Your task to perform on an android device: Set the phone to "Do not disturb". Image 0: 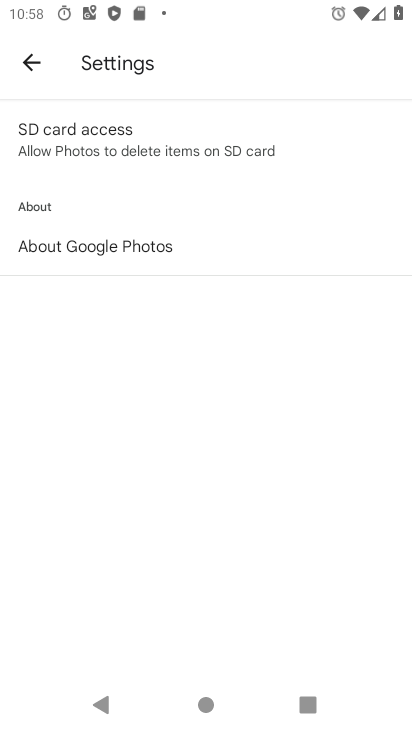
Step 0: click (29, 64)
Your task to perform on an android device: Set the phone to "Do not disturb". Image 1: 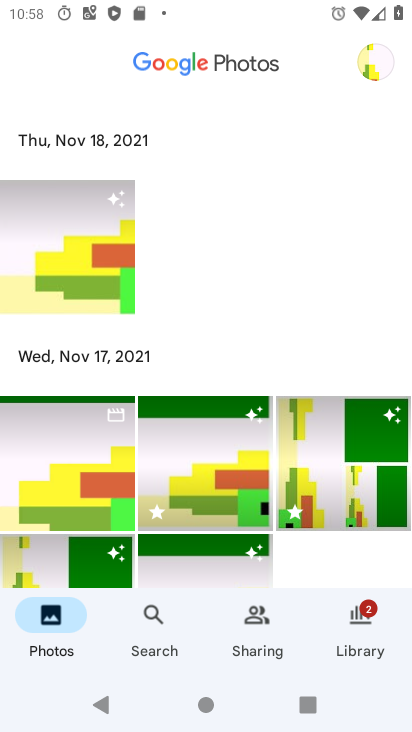
Step 1: press back button
Your task to perform on an android device: Set the phone to "Do not disturb". Image 2: 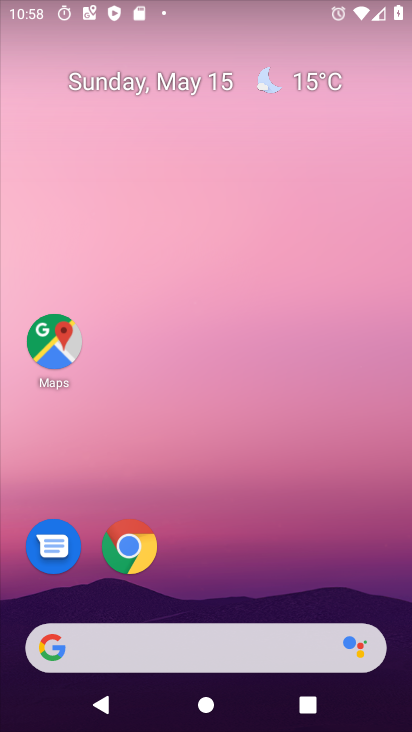
Step 2: drag from (253, 592) to (196, 273)
Your task to perform on an android device: Set the phone to "Do not disturb". Image 3: 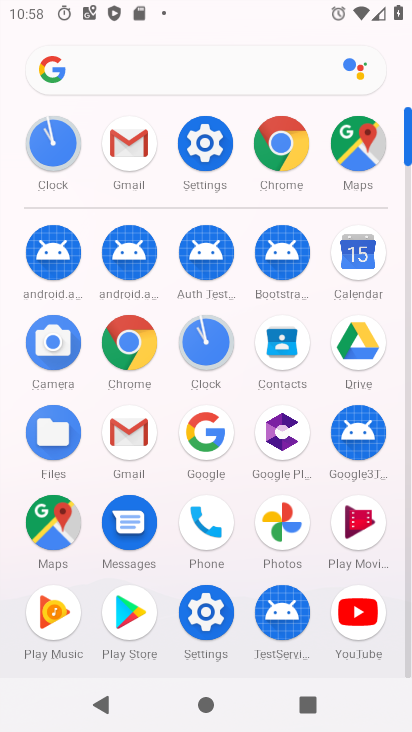
Step 3: click (274, 152)
Your task to perform on an android device: Set the phone to "Do not disturb". Image 4: 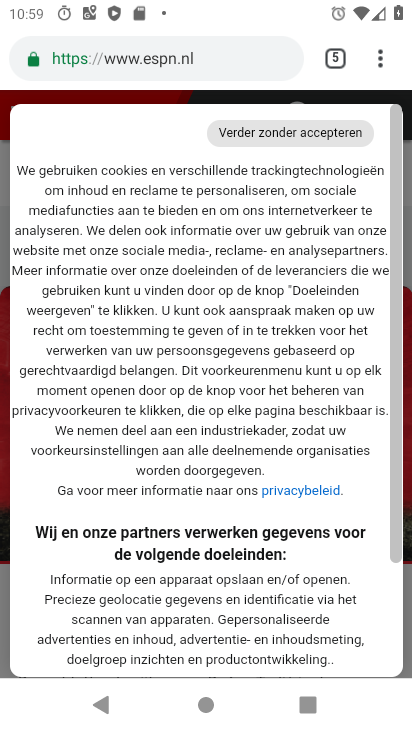
Step 4: press home button
Your task to perform on an android device: Set the phone to "Do not disturb". Image 5: 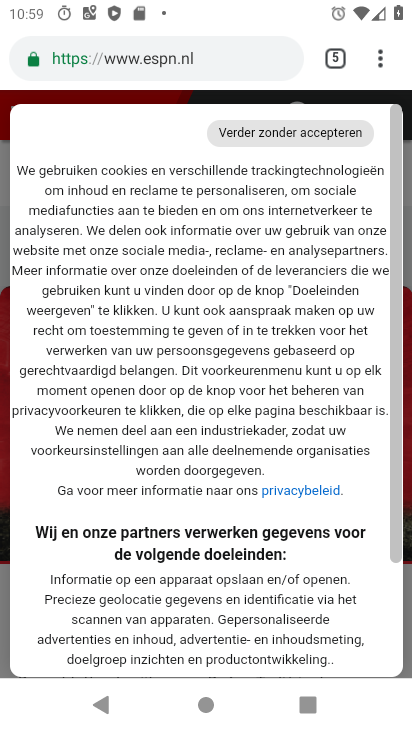
Step 5: press home button
Your task to perform on an android device: Set the phone to "Do not disturb". Image 6: 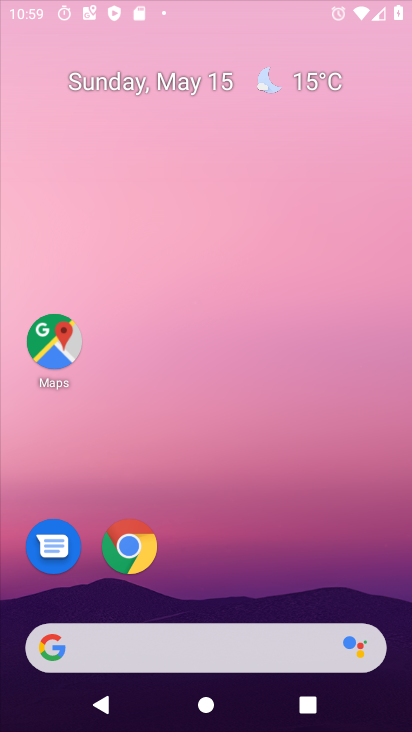
Step 6: press home button
Your task to perform on an android device: Set the phone to "Do not disturb". Image 7: 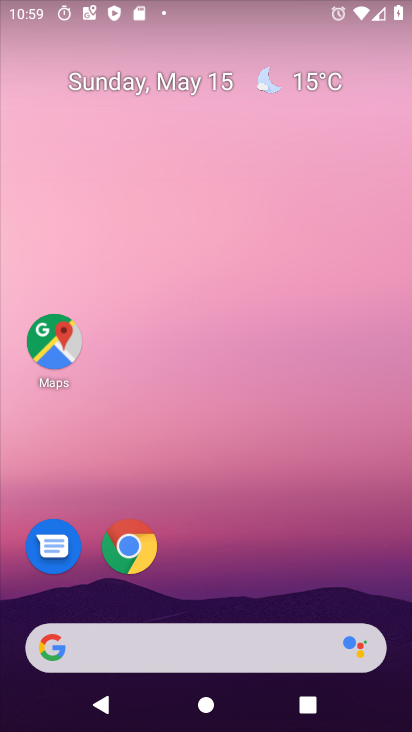
Step 7: drag from (225, 566) to (96, 53)
Your task to perform on an android device: Set the phone to "Do not disturb". Image 8: 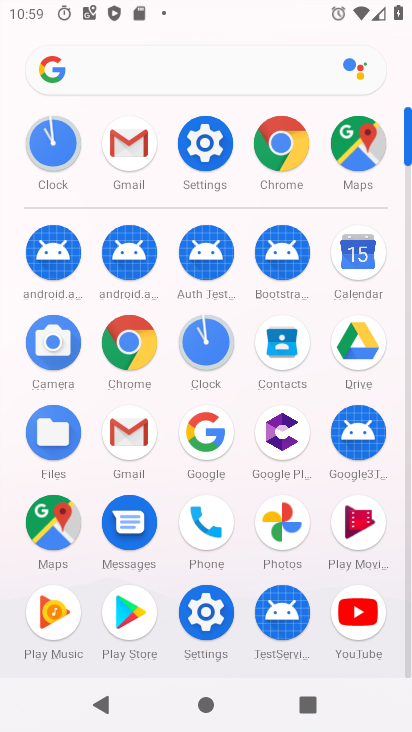
Step 8: click (191, 135)
Your task to perform on an android device: Set the phone to "Do not disturb". Image 9: 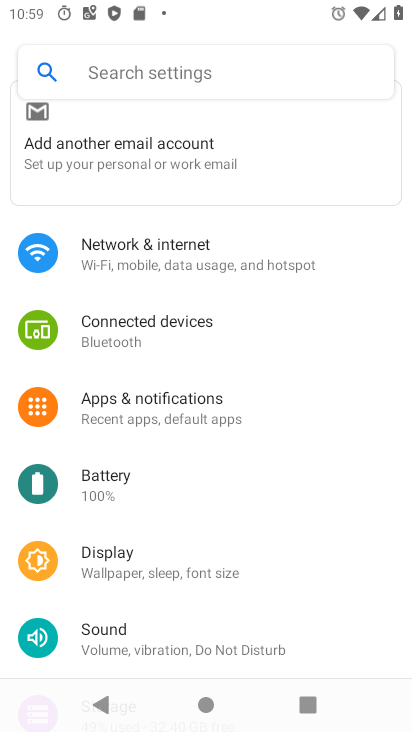
Step 9: click (112, 634)
Your task to perform on an android device: Set the phone to "Do not disturb". Image 10: 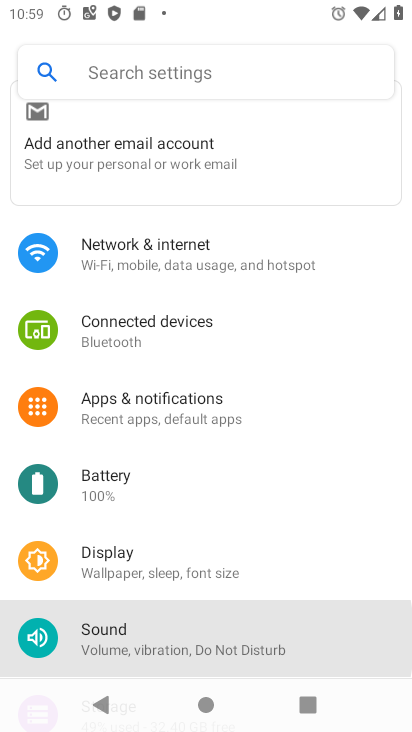
Step 10: click (112, 634)
Your task to perform on an android device: Set the phone to "Do not disturb". Image 11: 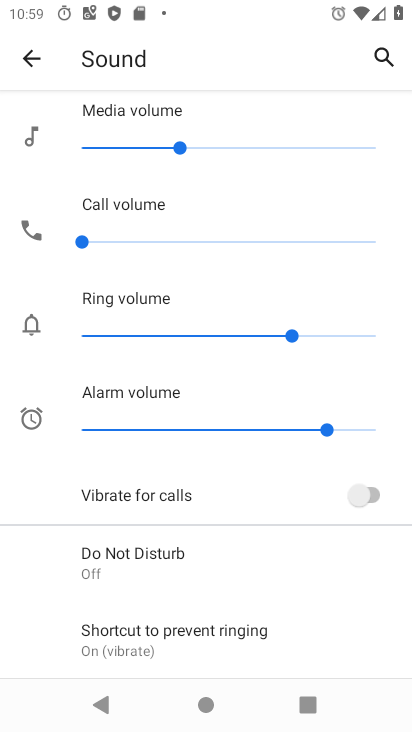
Step 11: drag from (171, 569) to (146, 196)
Your task to perform on an android device: Set the phone to "Do not disturb". Image 12: 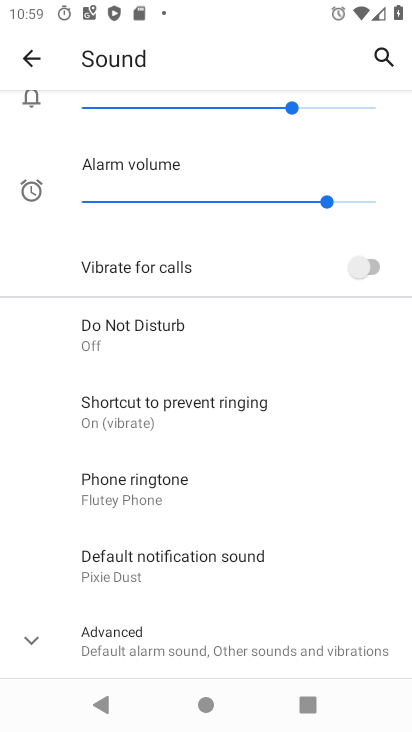
Step 12: click (118, 326)
Your task to perform on an android device: Set the phone to "Do not disturb". Image 13: 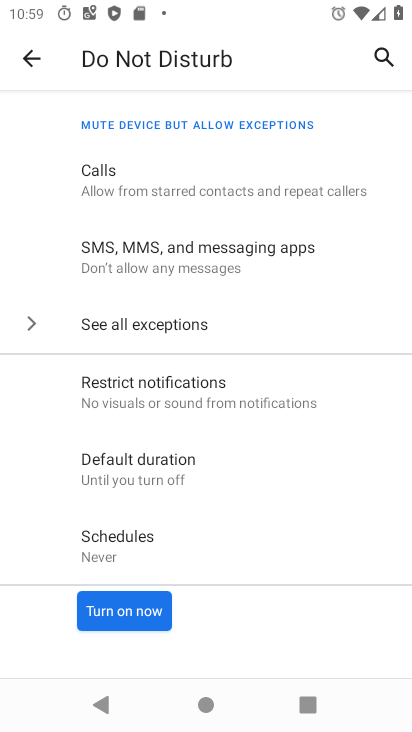
Step 13: click (120, 609)
Your task to perform on an android device: Set the phone to "Do not disturb". Image 14: 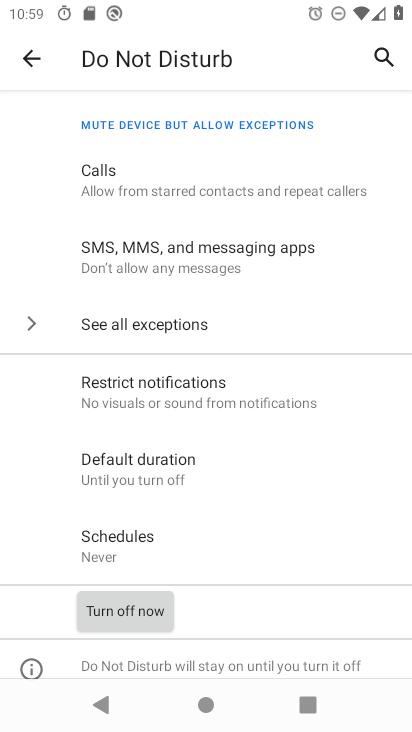
Step 14: click (31, 57)
Your task to perform on an android device: Set the phone to "Do not disturb". Image 15: 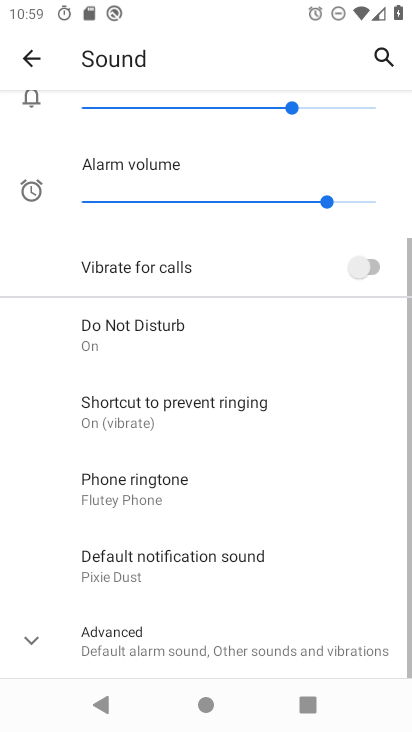
Step 15: click (31, 56)
Your task to perform on an android device: Set the phone to "Do not disturb". Image 16: 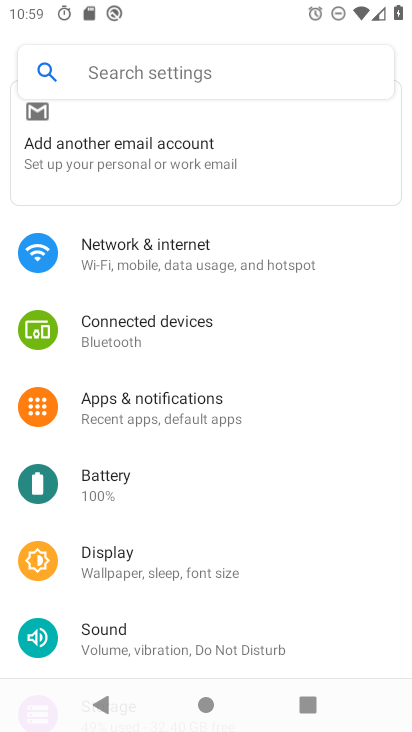
Step 16: press home button
Your task to perform on an android device: Set the phone to "Do not disturb". Image 17: 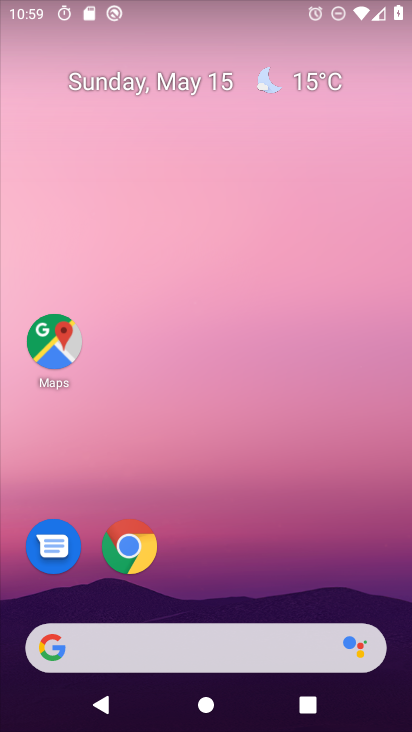
Step 17: drag from (294, 540) to (155, 39)
Your task to perform on an android device: Set the phone to "Do not disturb". Image 18: 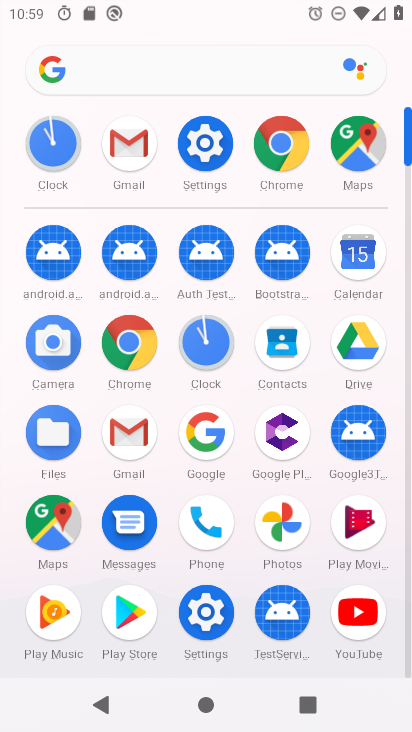
Step 18: click (202, 140)
Your task to perform on an android device: Set the phone to "Do not disturb". Image 19: 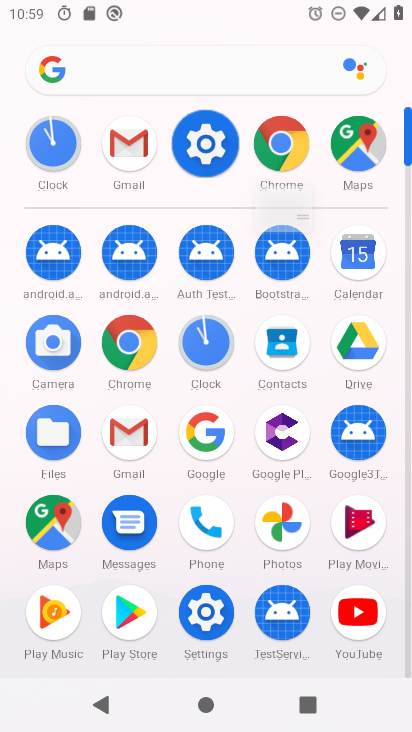
Step 19: click (202, 140)
Your task to perform on an android device: Set the phone to "Do not disturb". Image 20: 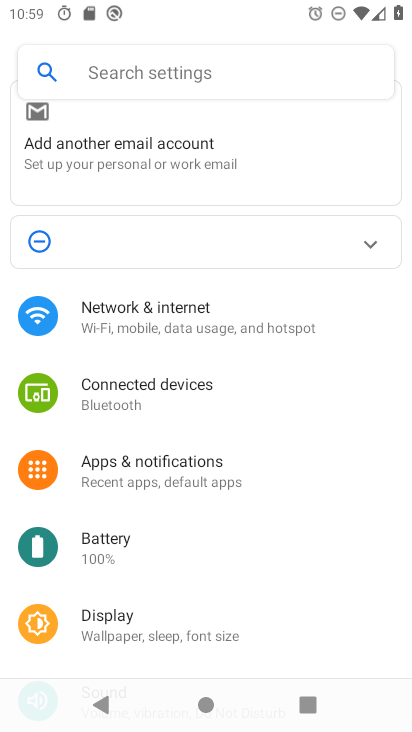
Step 20: drag from (165, 512) to (155, 44)
Your task to perform on an android device: Set the phone to "Do not disturb". Image 21: 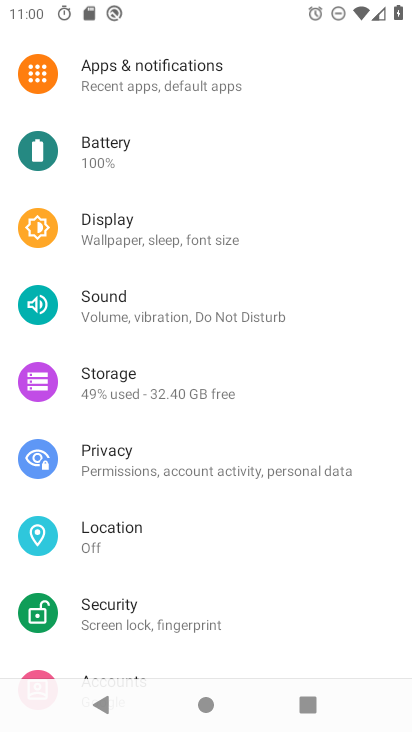
Step 21: click (136, 607)
Your task to perform on an android device: Set the phone to "Do not disturb". Image 22: 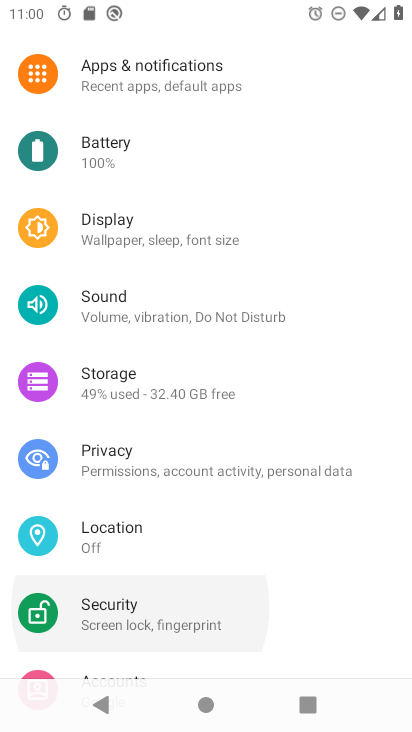
Step 22: click (136, 607)
Your task to perform on an android device: Set the phone to "Do not disturb". Image 23: 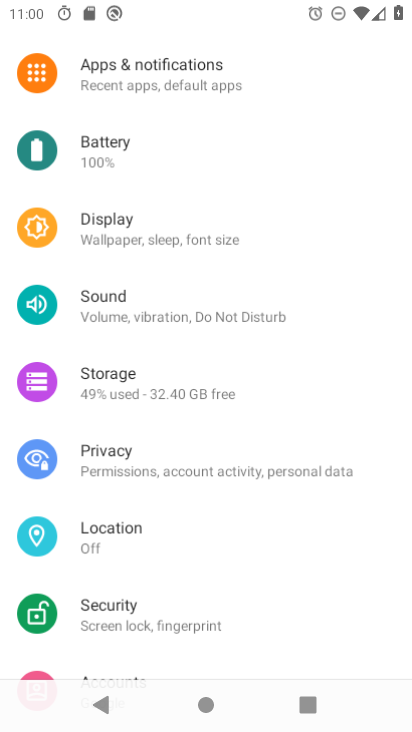
Step 23: click (136, 607)
Your task to perform on an android device: Set the phone to "Do not disturb". Image 24: 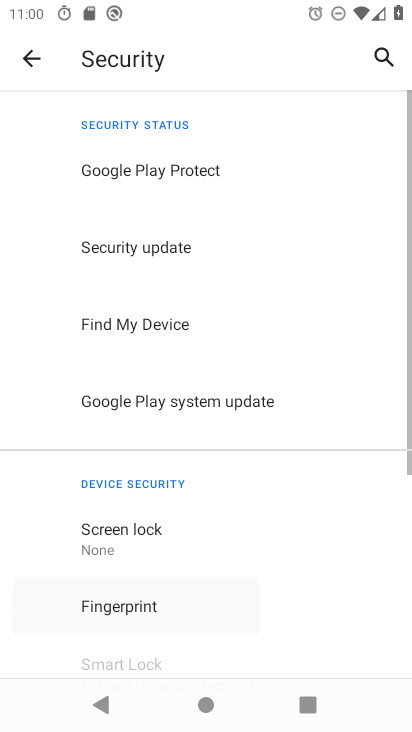
Step 24: click (136, 607)
Your task to perform on an android device: Set the phone to "Do not disturb". Image 25: 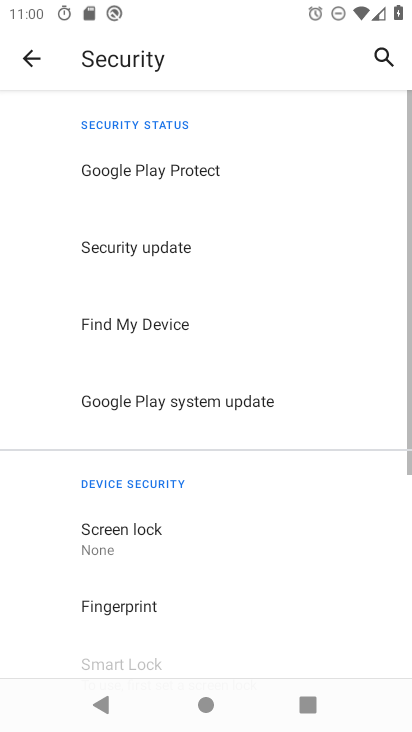
Step 25: click (149, 601)
Your task to perform on an android device: Set the phone to "Do not disturb". Image 26: 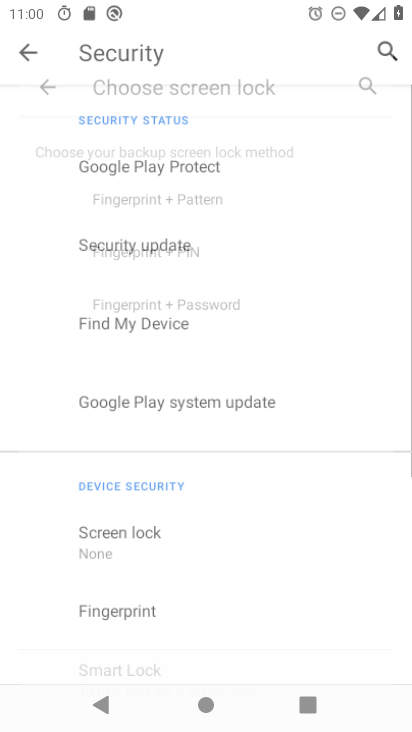
Step 26: click (194, 605)
Your task to perform on an android device: Set the phone to "Do not disturb". Image 27: 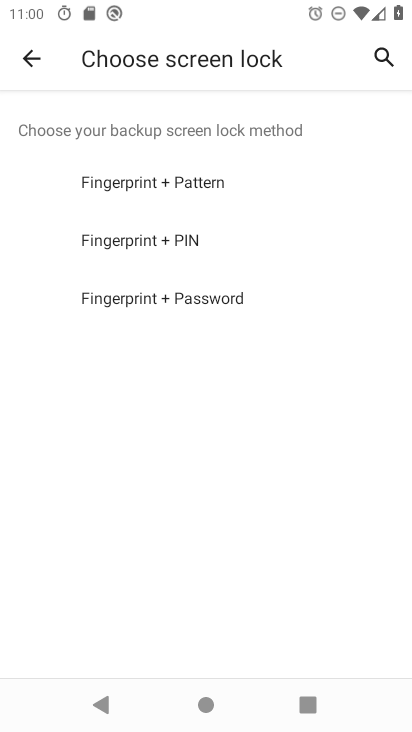
Step 27: click (26, 55)
Your task to perform on an android device: Set the phone to "Do not disturb". Image 28: 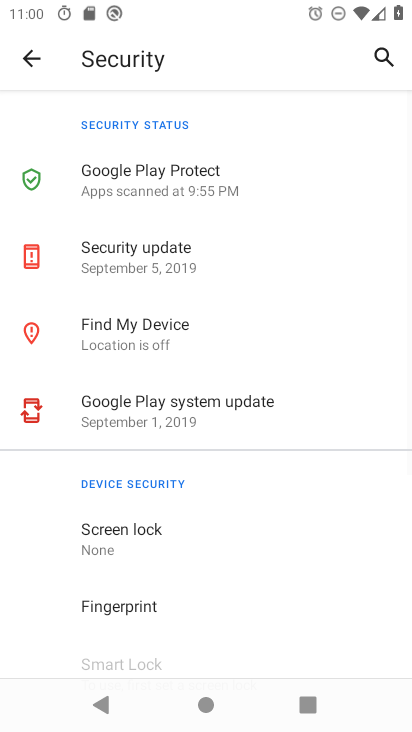
Step 28: click (22, 54)
Your task to perform on an android device: Set the phone to "Do not disturb". Image 29: 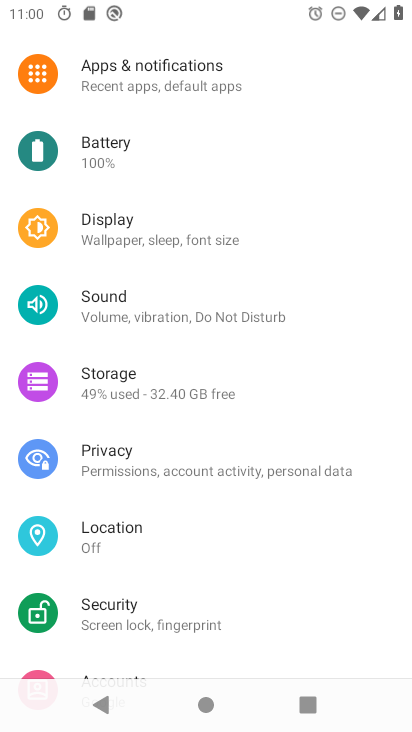
Step 29: click (123, 299)
Your task to perform on an android device: Set the phone to "Do not disturb". Image 30: 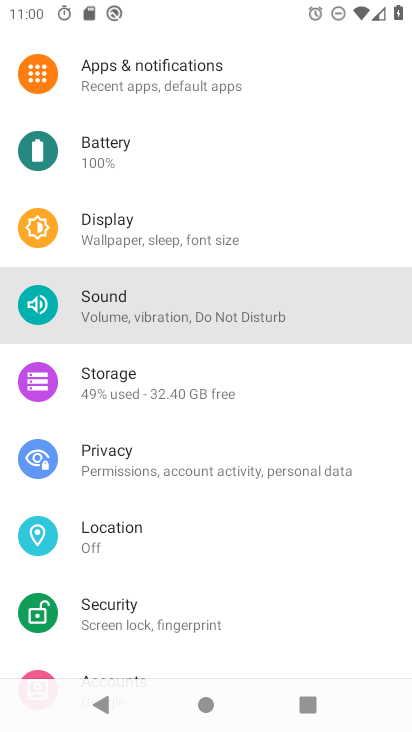
Step 30: click (123, 300)
Your task to perform on an android device: Set the phone to "Do not disturb". Image 31: 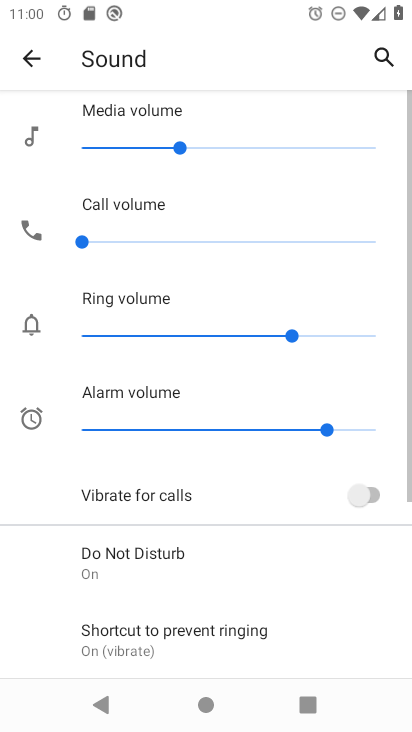
Step 31: drag from (194, 452) to (104, 154)
Your task to perform on an android device: Set the phone to "Do not disturb". Image 32: 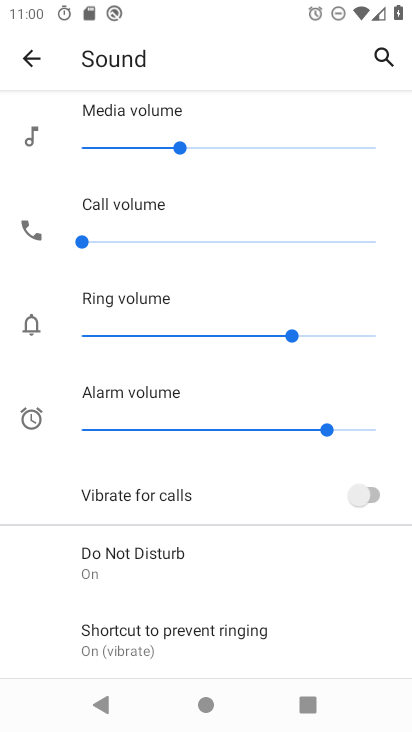
Step 32: drag from (193, 441) to (159, 96)
Your task to perform on an android device: Set the phone to "Do not disturb". Image 33: 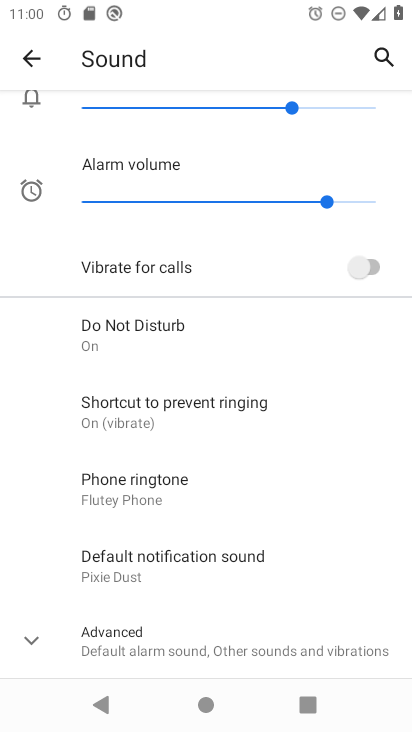
Step 33: click (120, 485)
Your task to perform on an android device: Set the phone to "Do not disturb". Image 34: 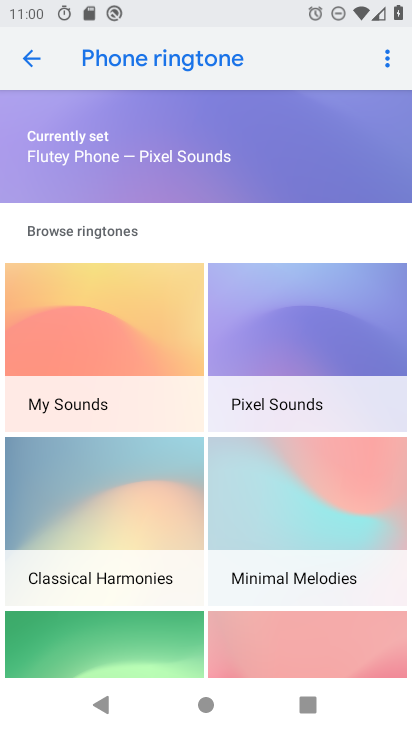
Step 34: click (33, 60)
Your task to perform on an android device: Set the phone to "Do not disturb". Image 35: 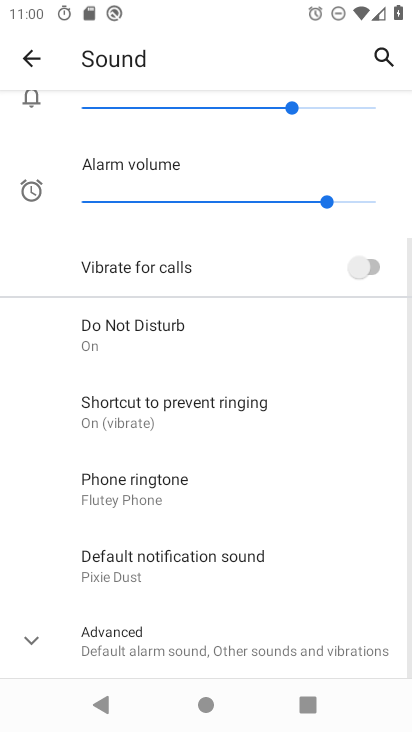
Step 35: click (104, 318)
Your task to perform on an android device: Set the phone to "Do not disturb". Image 36: 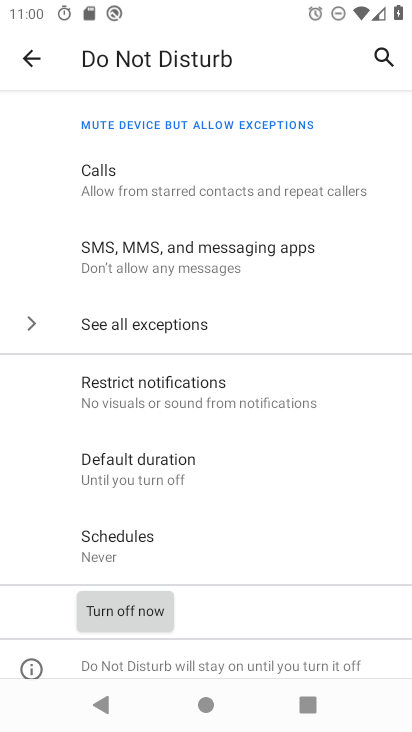
Step 36: click (139, 611)
Your task to perform on an android device: Set the phone to "Do not disturb". Image 37: 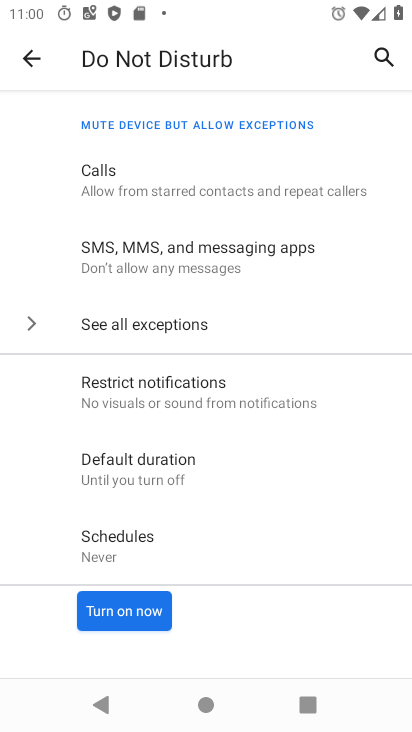
Step 37: task complete